Your task to perform on an android device: turn off location Image 0: 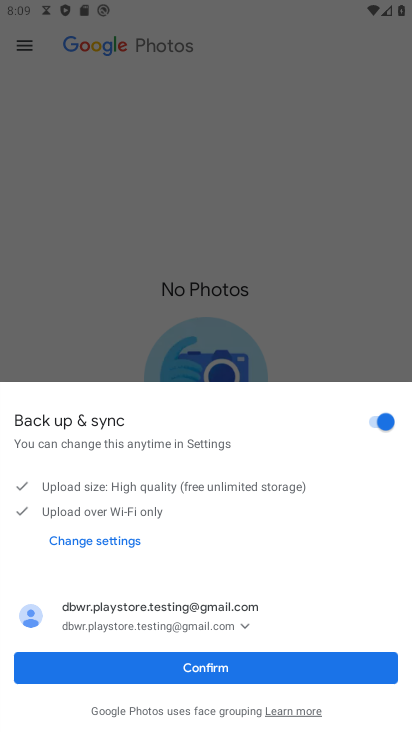
Step 0: press home button
Your task to perform on an android device: turn off location Image 1: 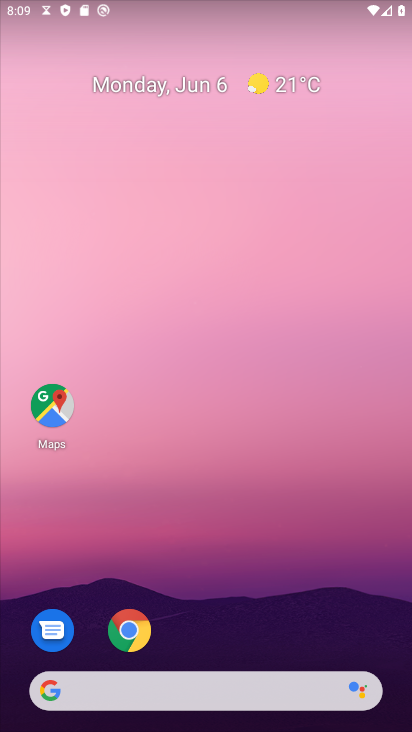
Step 1: drag from (261, 585) to (248, 1)
Your task to perform on an android device: turn off location Image 2: 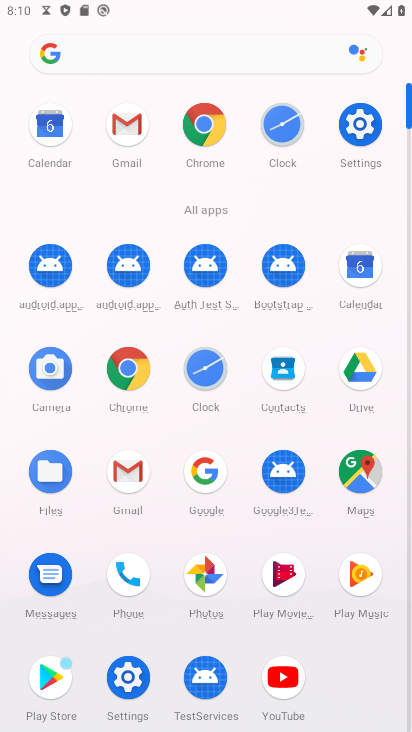
Step 2: click (362, 122)
Your task to perform on an android device: turn off location Image 3: 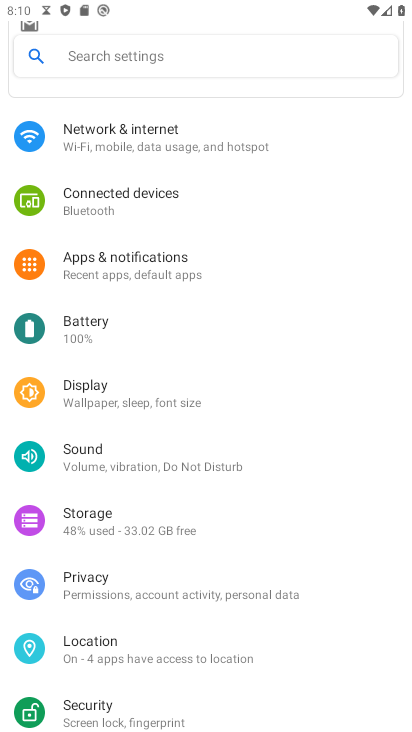
Step 3: click (133, 655)
Your task to perform on an android device: turn off location Image 4: 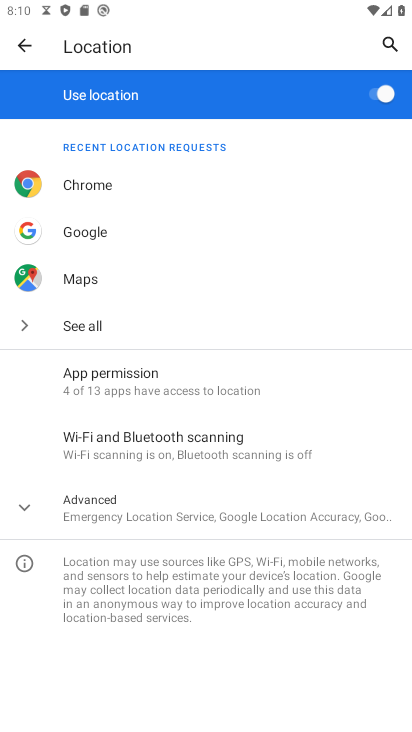
Step 4: click (373, 97)
Your task to perform on an android device: turn off location Image 5: 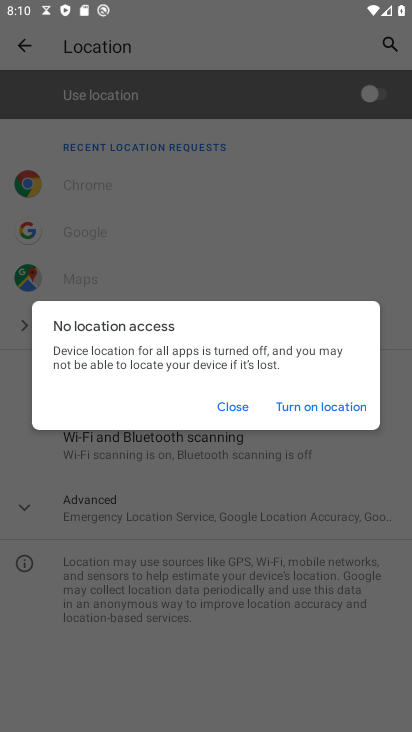
Step 5: click (234, 407)
Your task to perform on an android device: turn off location Image 6: 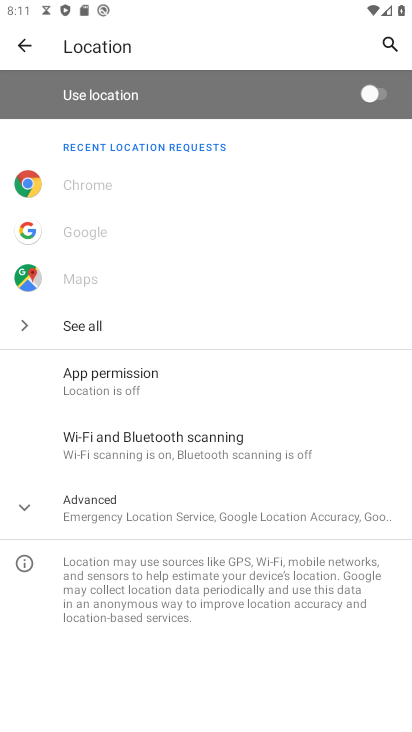
Step 6: task complete